Your task to perform on an android device: toggle improve location accuracy Image 0: 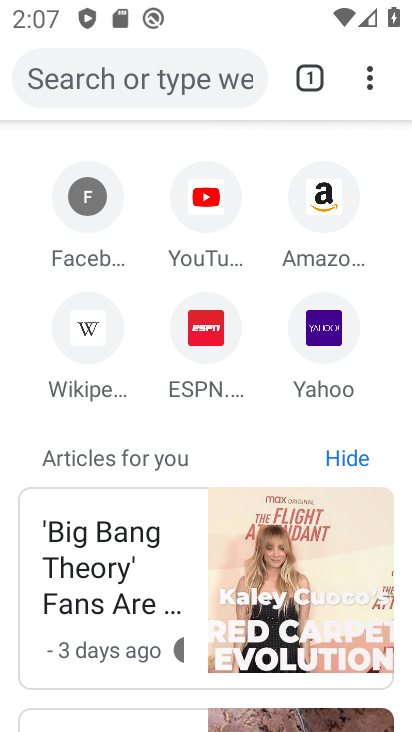
Step 0: press back button
Your task to perform on an android device: toggle improve location accuracy Image 1: 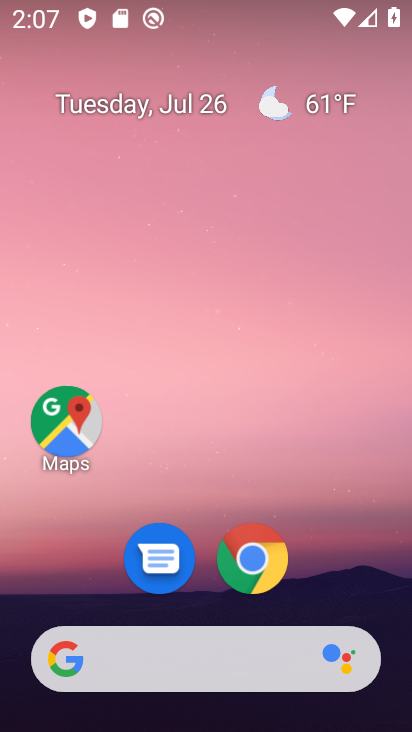
Step 1: drag from (84, 499) to (218, 23)
Your task to perform on an android device: toggle improve location accuracy Image 2: 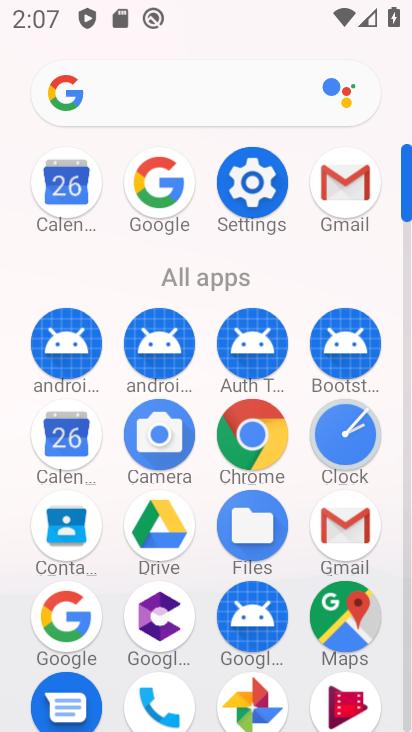
Step 2: click (234, 185)
Your task to perform on an android device: toggle improve location accuracy Image 3: 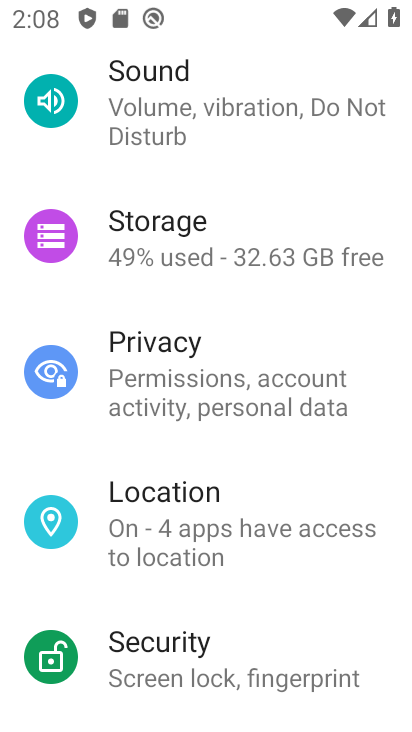
Step 3: click (191, 510)
Your task to perform on an android device: toggle improve location accuracy Image 4: 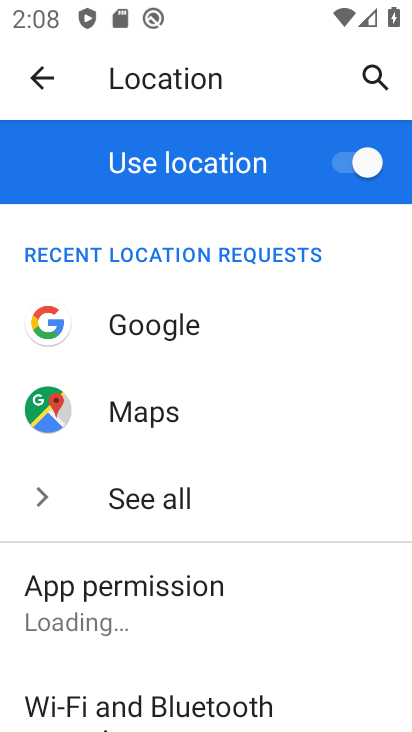
Step 4: drag from (172, 666) to (276, 124)
Your task to perform on an android device: toggle improve location accuracy Image 5: 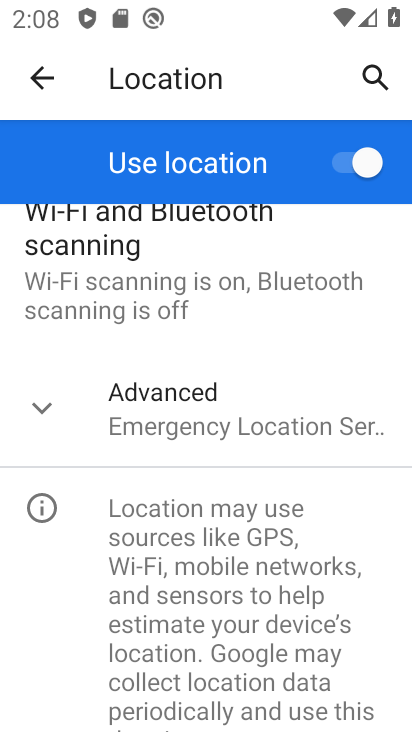
Step 5: click (217, 417)
Your task to perform on an android device: toggle improve location accuracy Image 6: 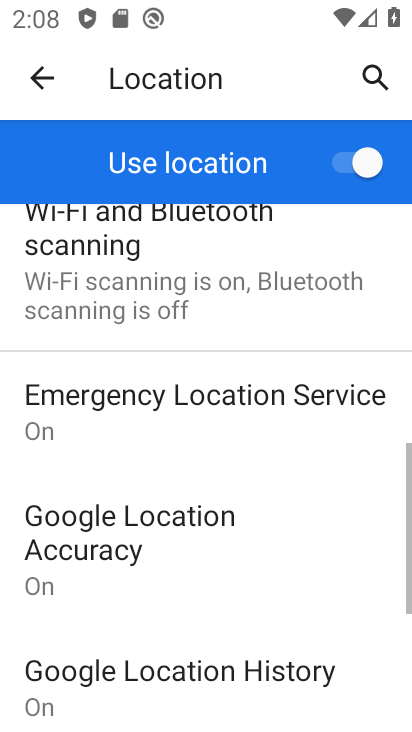
Step 6: click (96, 529)
Your task to perform on an android device: toggle improve location accuracy Image 7: 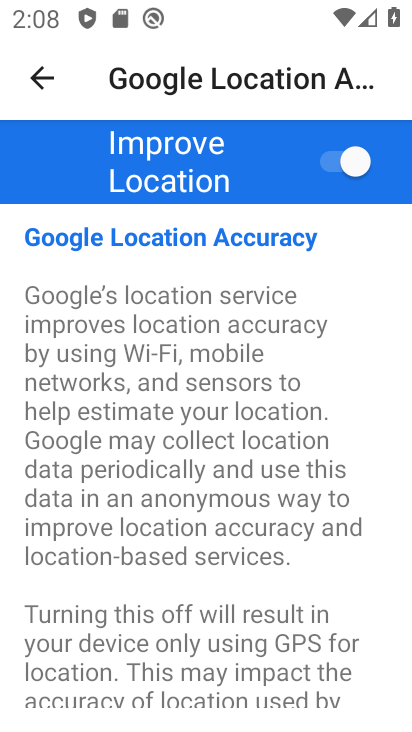
Step 7: click (355, 151)
Your task to perform on an android device: toggle improve location accuracy Image 8: 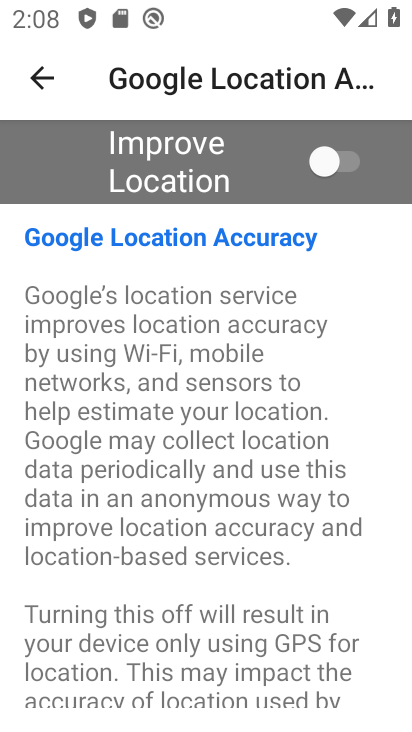
Step 8: task complete